Your task to perform on an android device: make emails show in primary in the gmail app Image 0: 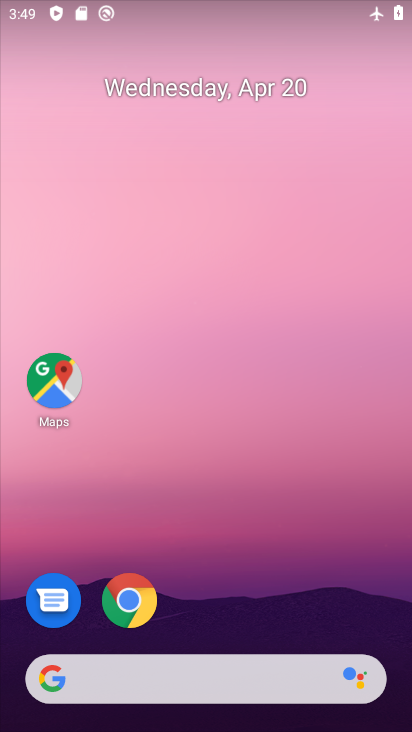
Step 0: drag from (223, 604) to (208, 125)
Your task to perform on an android device: make emails show in primary in the gmail app Image 1: 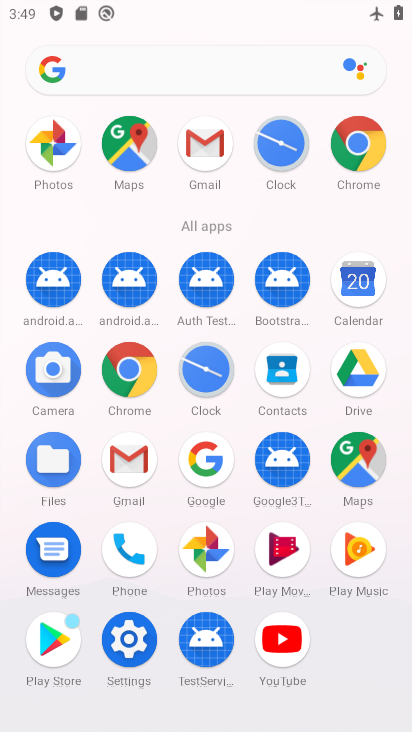
Step 1: click (123, 448)
Your task to perform on an android device: make emails show in primary in the gmail app Image 2: 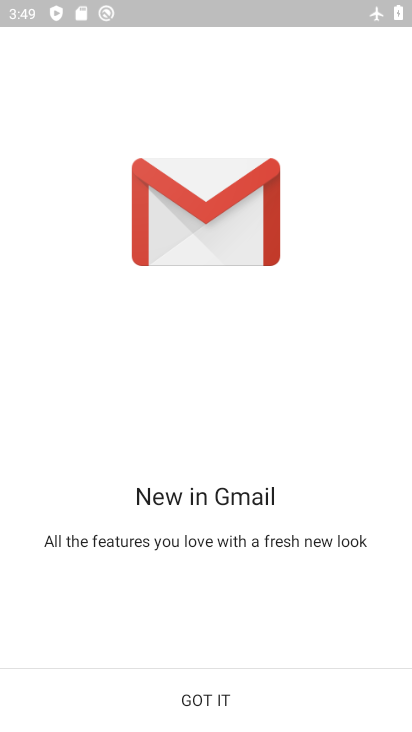
Step 2: click (212, 698)
Your task to perform on an android device: make emails show in primary in the gmail app Image 3: 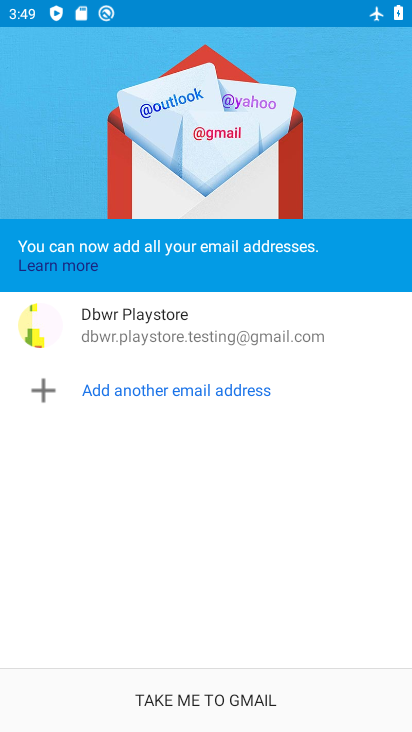
Step 3: click (207, 712)
Your task to perform on an android device: make emails show in primary in the gmail app Image 4: 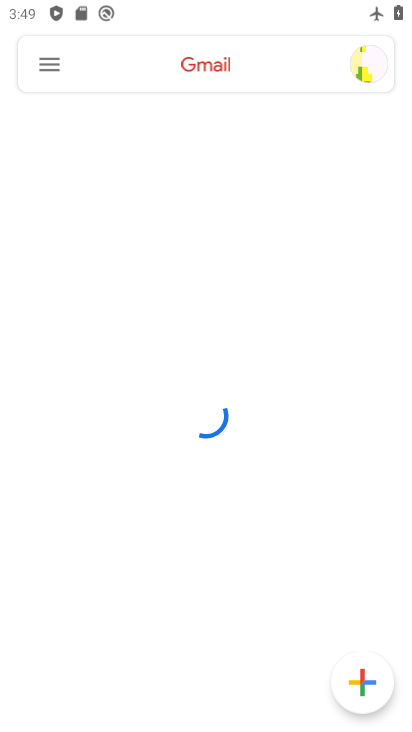
Step 4: click (47, 55)
Your task to perform on an android device: make emails show in primary in the gmail app Image 5: 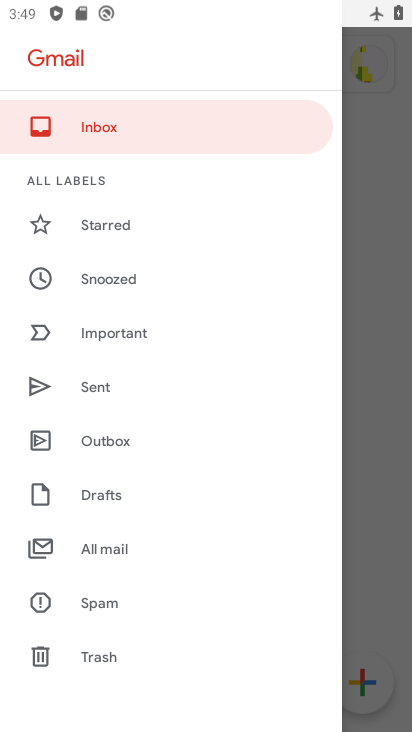
Step 5: drag from (146, 615) to (175, 78)
Your task to perform on an android device: make emails show in primary in the gmail app Image 6: 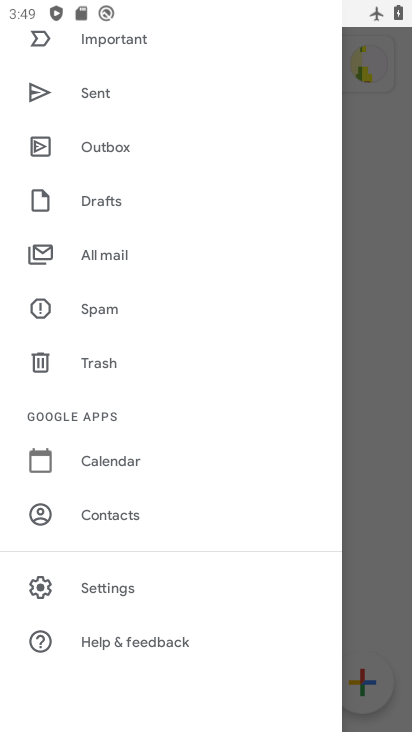
Step 6: click (140, 584)
Your task to perform on an android device: make emails show in primary in the gmail app Image 7: 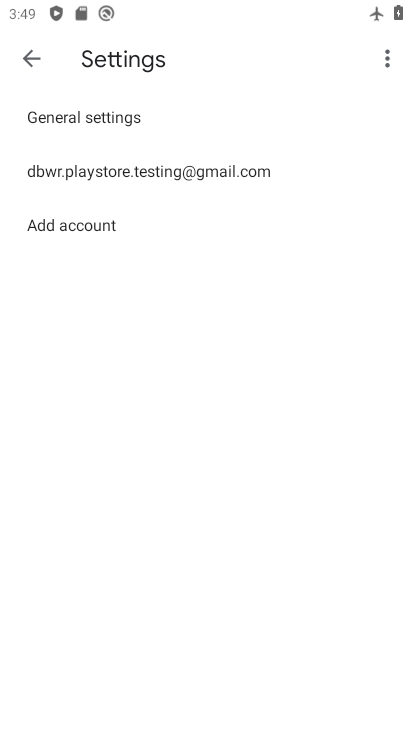
Step 7: click (275, 168)
Your task to perform on an android device: make emails show in primary in the gmail app Image 8: 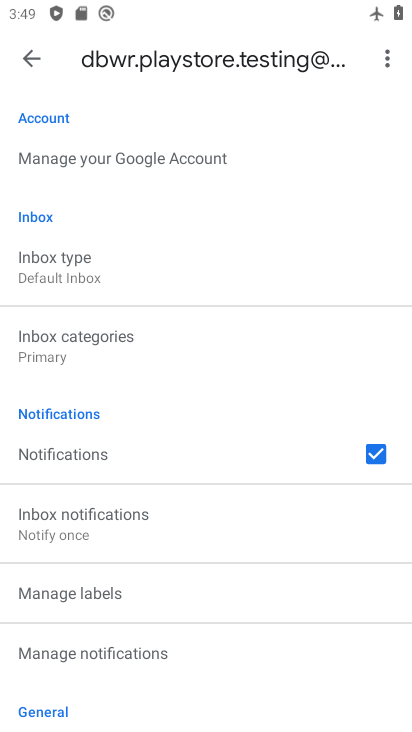
Step 8: click (104, 265)
Your task to perform on an android device: make emails show in primary in the gmail app Image 9: 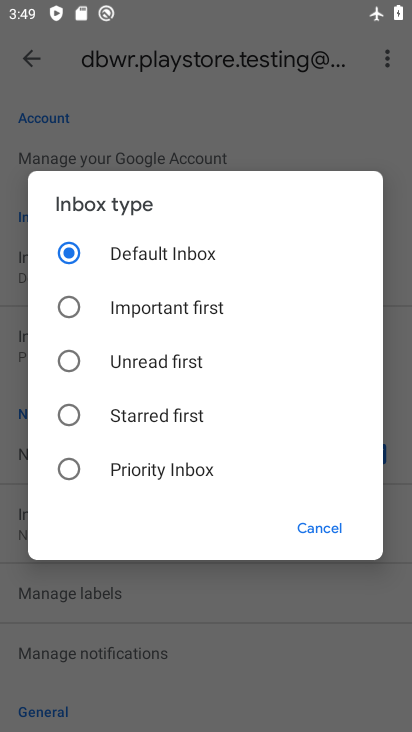
Step 9: click (96, 246)
Your task to perform on an android device: make emails show in primary in the gmail app Image 10: 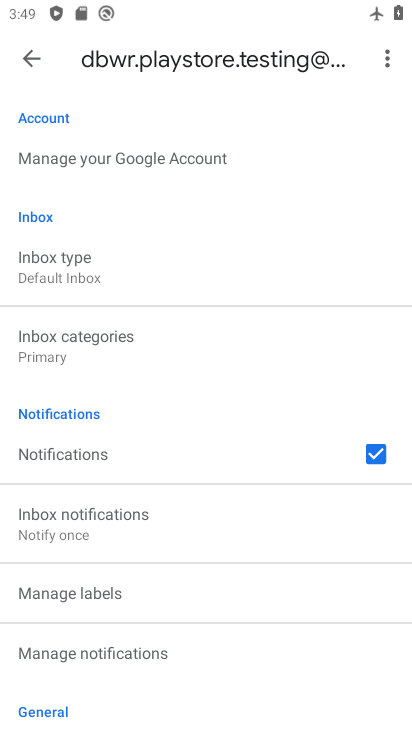
Step 10: task complete